Your task to perform on an android device: toggle pop-ups in chrome Image 0: 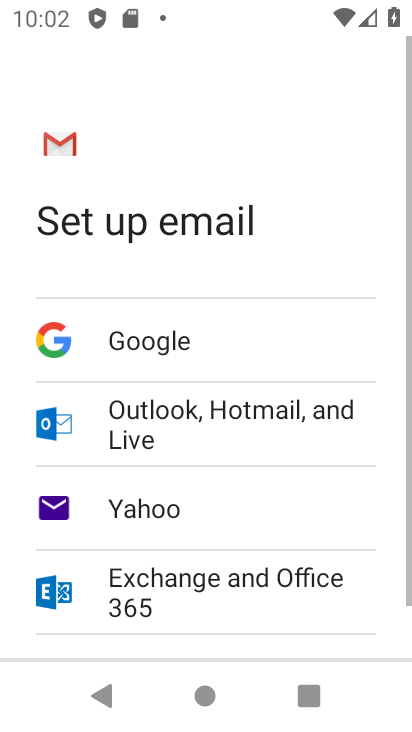
Step 0: press home button
Your task to perform on an android device: toggle pop-ups in chrome Image 1: 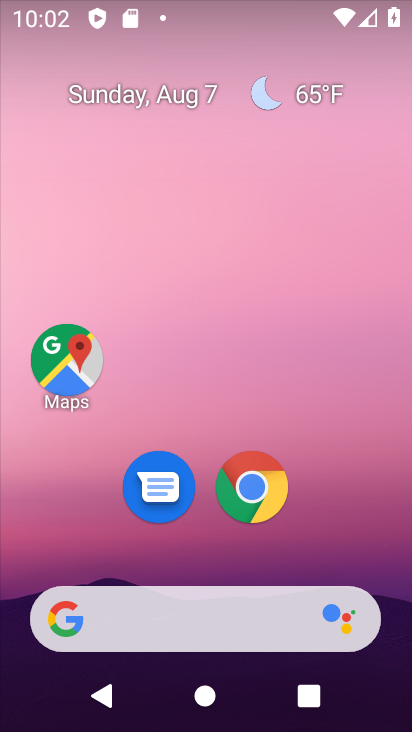
Step 1: click (248, 466)
Your task to perform on an android device: toggle pop-ups in chrome Image 2: 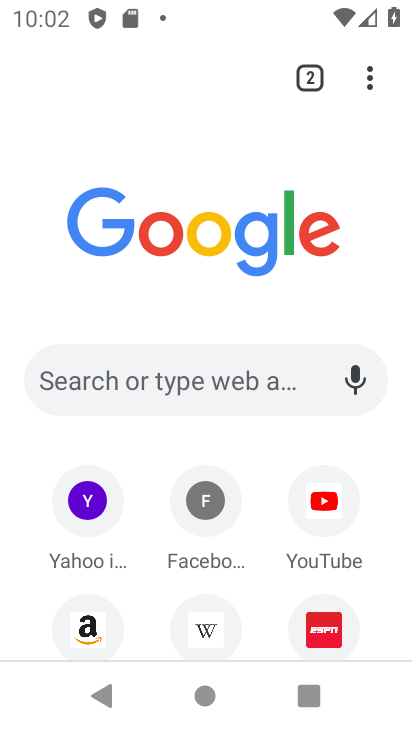
Step 2: click (364, 75)
Your task to perform on an android device: toggle pop-ups in chrome Image 3: 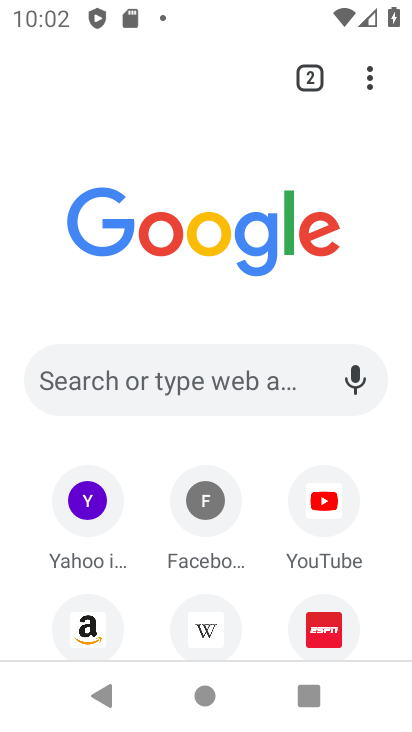
Step 3: click (369, 74)
Your task to perform on an android device: toggle pop-ups in chrome Image 4: 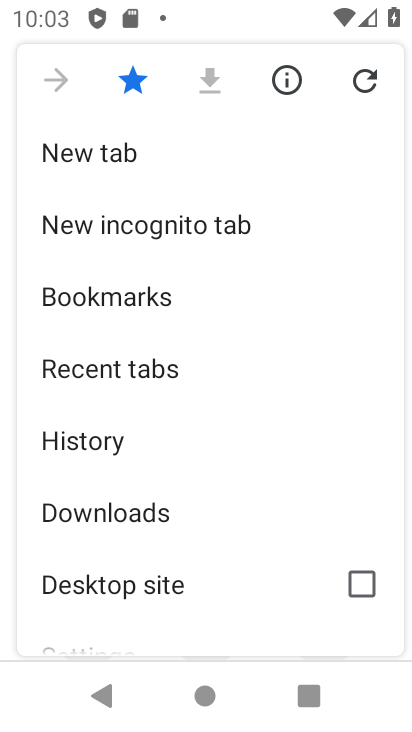
Step 4: drag from (249, 591) to (267, 305)
Your task to perform on an android device: toggle pop-ups in chrome Image 5: 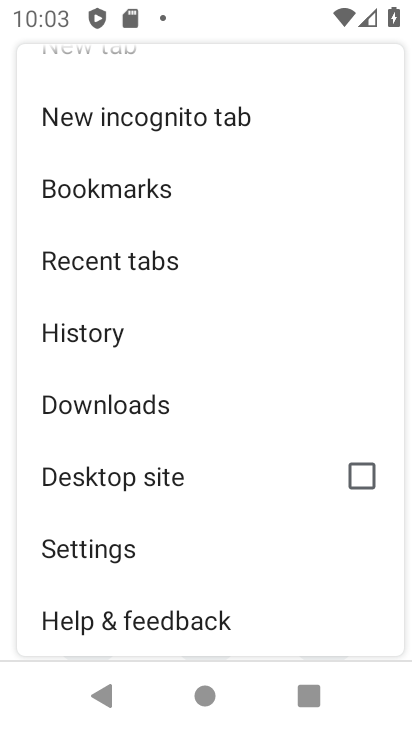
Step 5: drag from (261, 591) to (234, 281)
Your task to perform on an android device: toggle pop-ups in chrome Image 6: 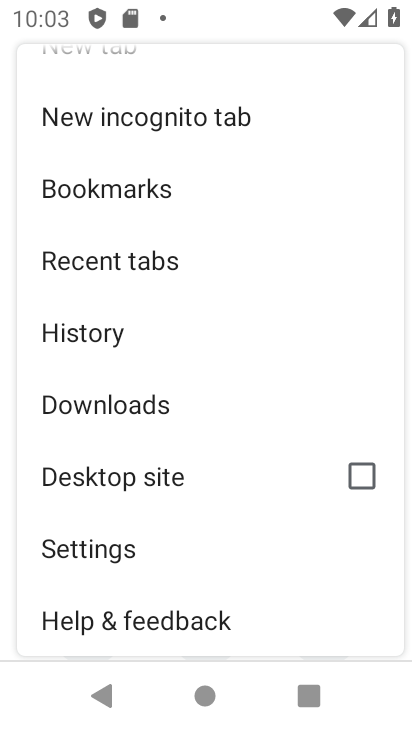
Step 6: click (101, 544)
Your task to perform on an android device: toggle pop-ups in chrome Image 7: 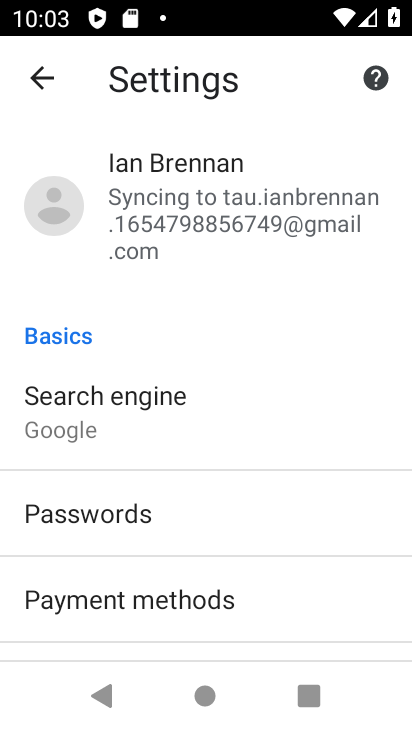
Step 7: drag from (308, 579) to (278, 205)
Your task to perform on an android device: toggle pop-ups in chrome Image 8: 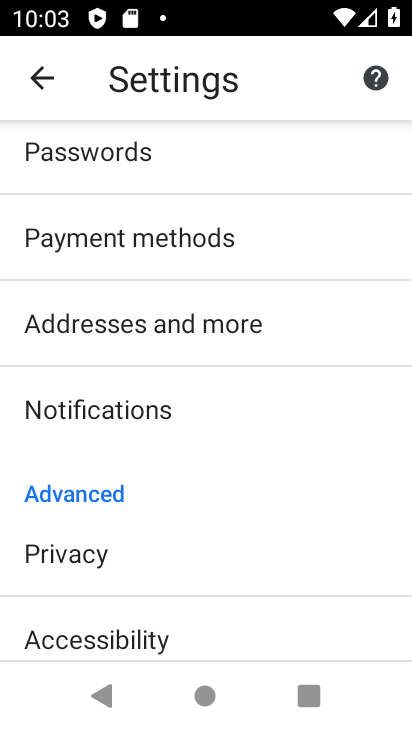
Step 8: click (306, 345)
Your task to perform on an android device: toggle pop-ups in chrome Image 9: 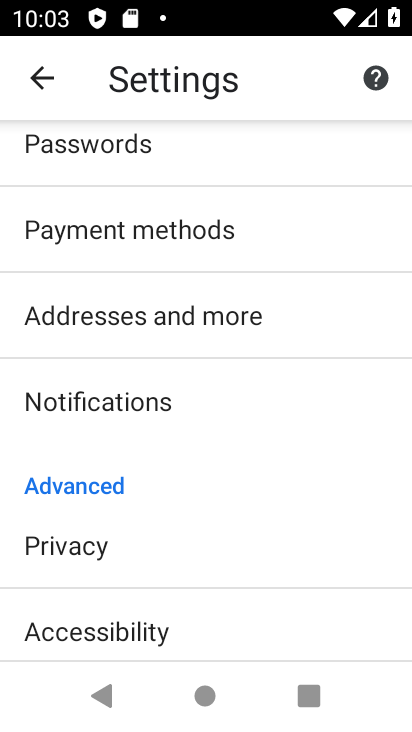
Step 9: drag from (268, 625) to (267, 198)
Your task to perform on an android device: toggle pop-ups in chrome Image 10: 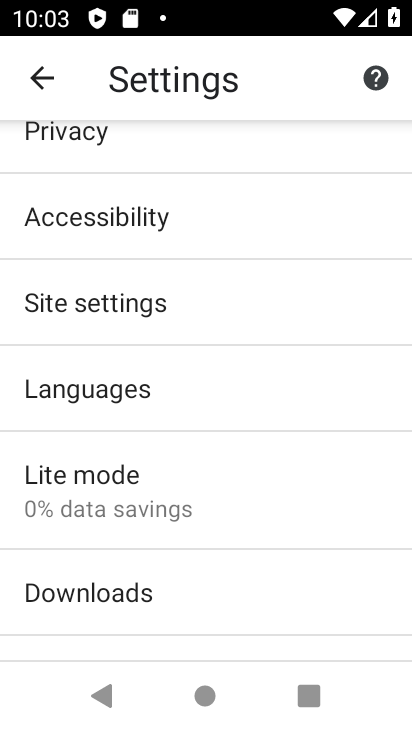
Step 10: click (252, 247)
Your task to perform on an android device: toggle pop-ups in chrome Image 11: 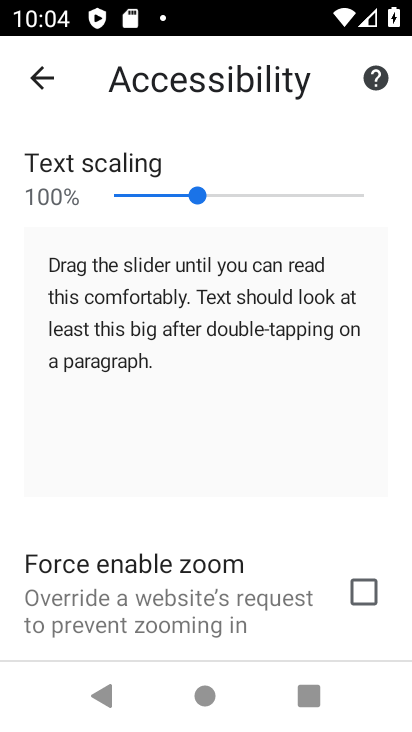
Step 11: click (28, 77)
Your task to perform on an android device: toggle pop-ups in chrome Image 12: 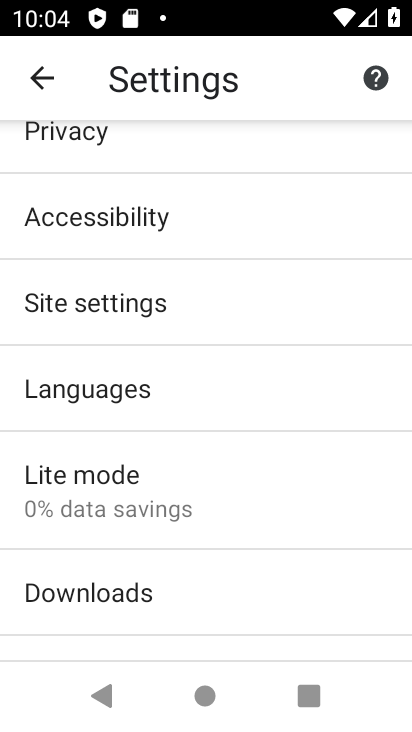
Step 12: drag from (219, 587) to (209, 222)
Your task to perform on an android device: toggle pop-ups in chrome Image 13: 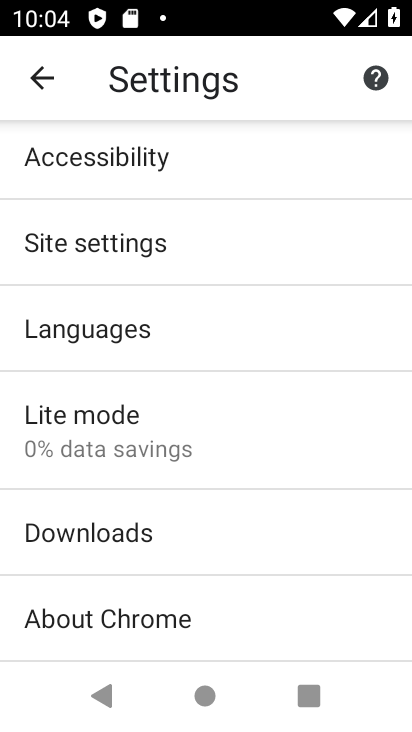
Step 13: click (84, 240)
Your task to perform on an android device: toggle pop-ups in chrome Image 14: 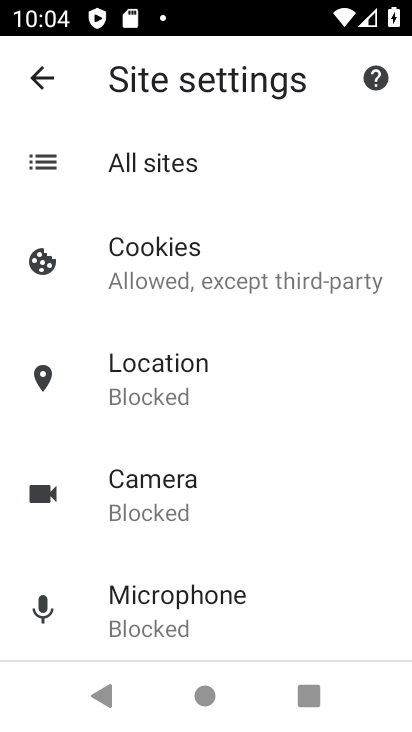
Step 14: drag from (310, 554) to (279, 202)
Your task to perform on an android device: toggle pop-ups in chrome Image 15: 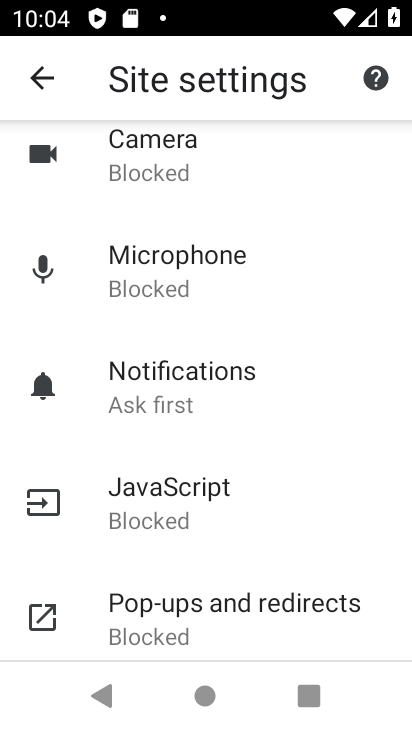
Step 15: click (168, 617)
Your task to perform on an android device: toggle pop-ups in chrome Image 16: 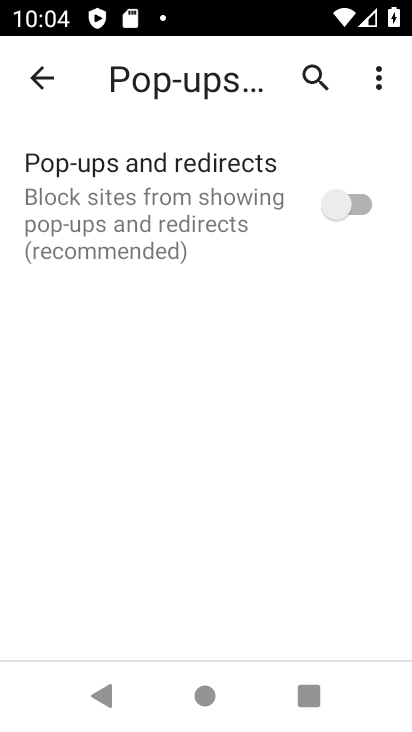
Step 16: click (347, 217)
Your task to perform on an android device: toggle pop-ups in chrome Image 17: 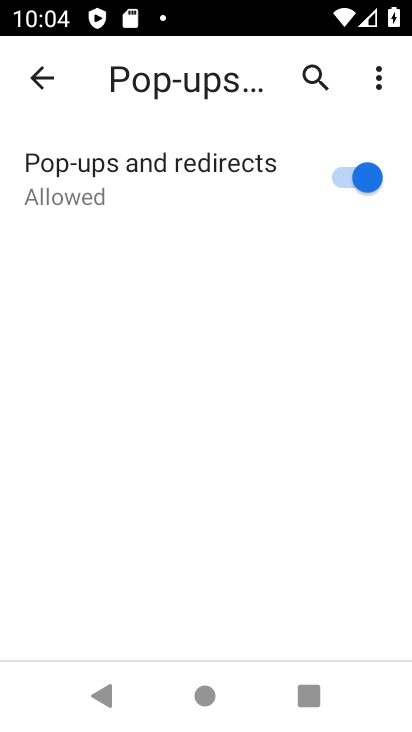
Step 17: task complete